Your task to perform on an android device: change keyboard looks Image 0: 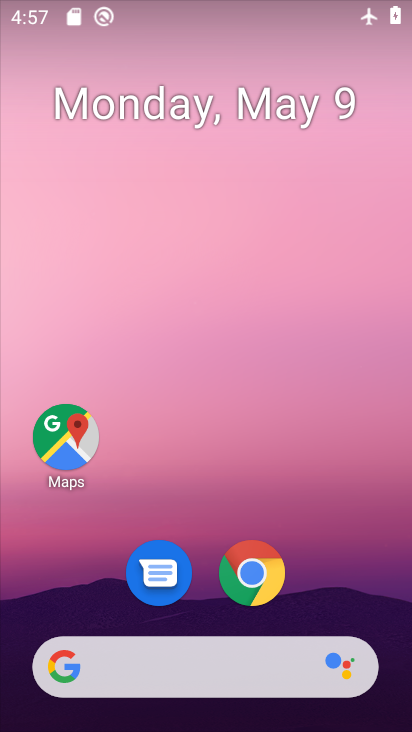
Step 0: drag from (377, 616) to (264, 143)
Your task to perform on an android device: change keyboard looks Image 1: 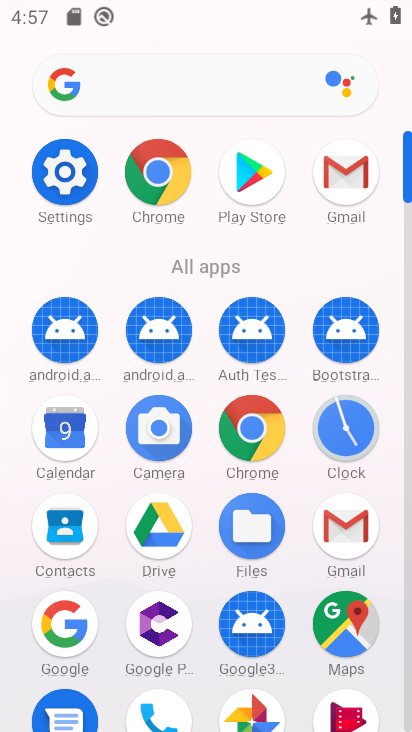
Step 1: click (408, 698)
Your task to perform on an android device: change keyboard looks Image 2: 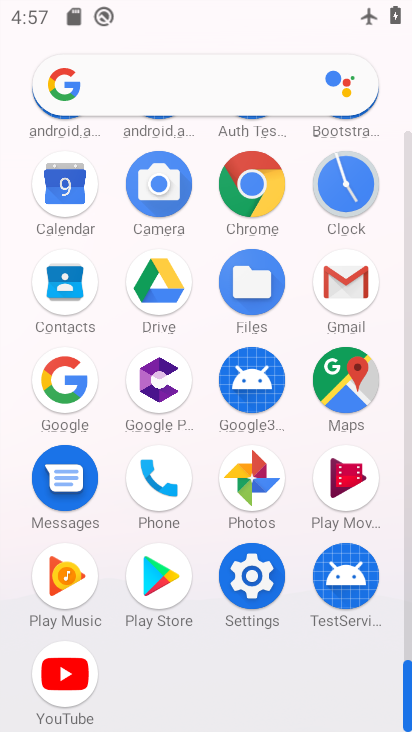
Step 2: click (251, 578)
Your task to perform on an android device: change keyboard looks Image 3: 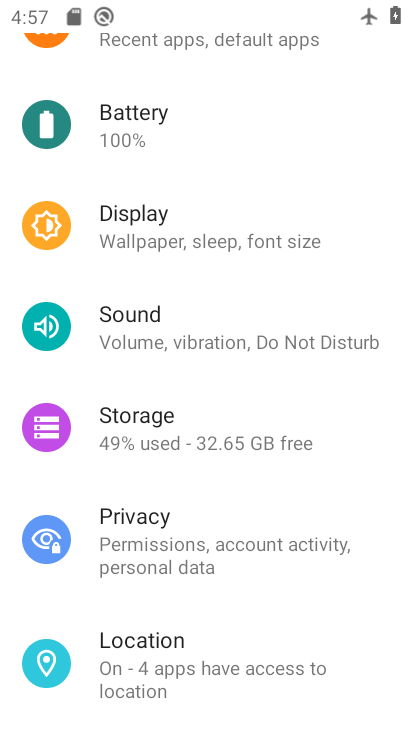
Step 3: drag from (356, 666) to (325, 110)
Your task to perform on an android device: change keyboard looks Image 4: 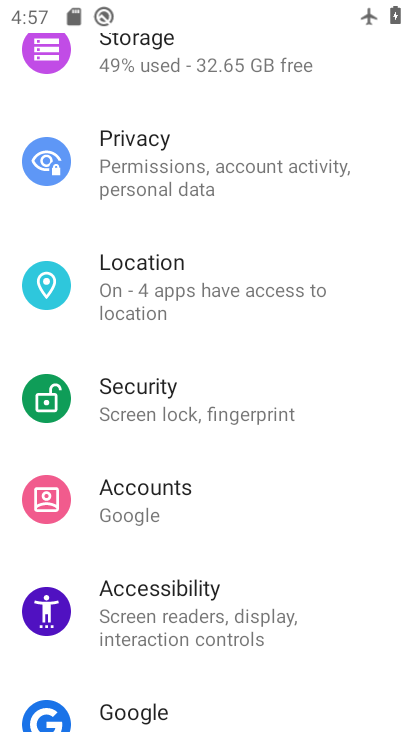
Step 4: drag from (325, 651) to (339, 192)
Your task to perform on an android device: change keyboard looks Image 5: 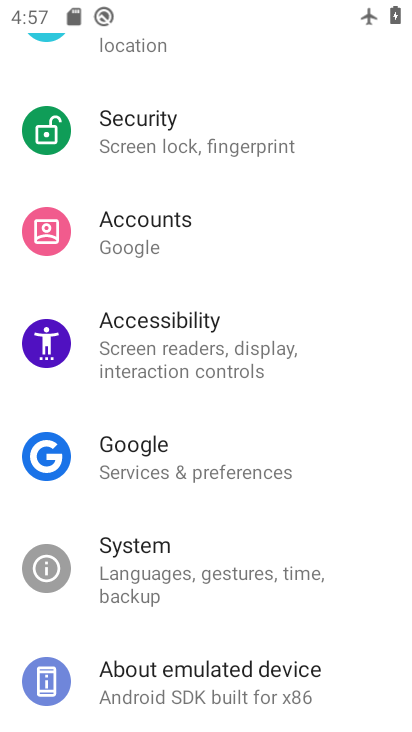
Step 5: click (125, 559)
Your task to perform on an android device: change keyboard looks Image 6: 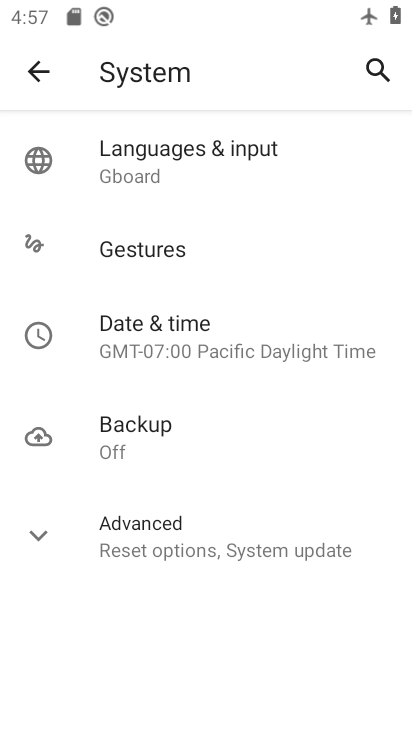
Step 6: click (139, 145)
Your task to perform on an android device: change keyboard looks Image 7: 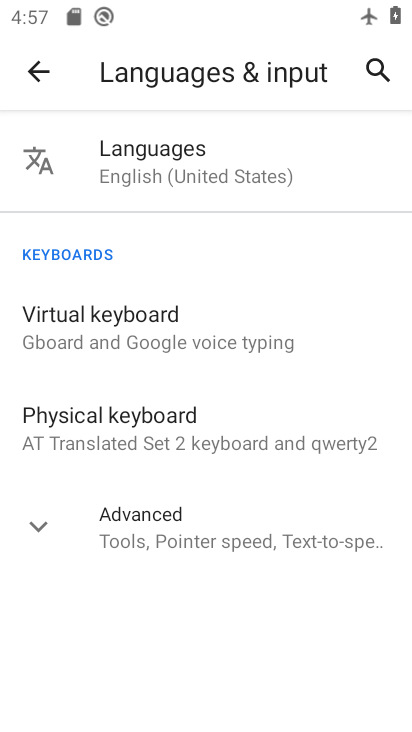
Step 7: click (95, 431)
Your task to perform on an android device: change keyboard looks Image 8: 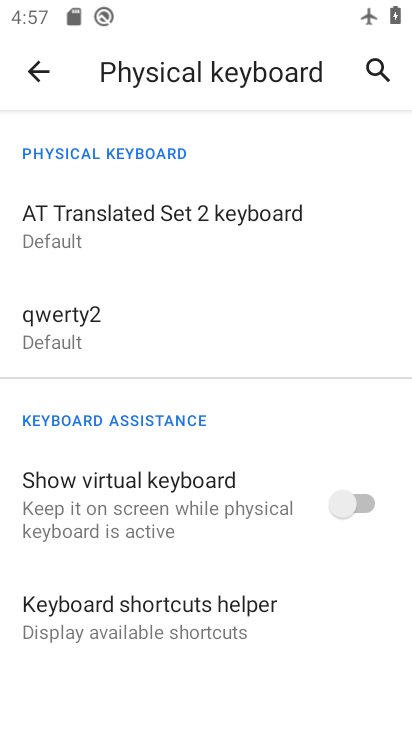
Step 8: click (48, 329)
Your task to perform on an android device: change keyboard looks Image 9: 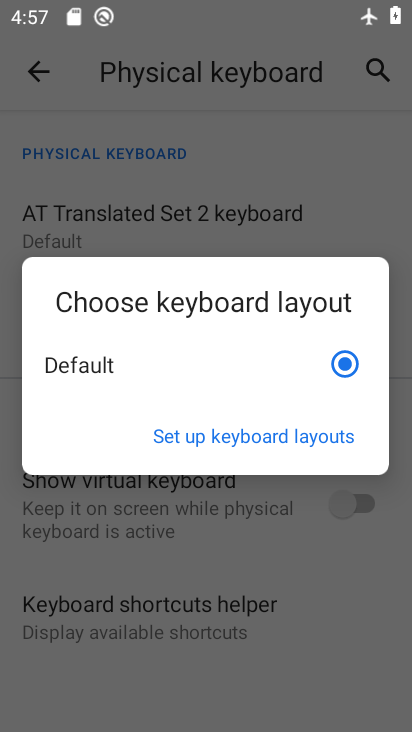
Step 9: click (260, 437)
Your task to perform on an android device: change keyboard looks Image 10: 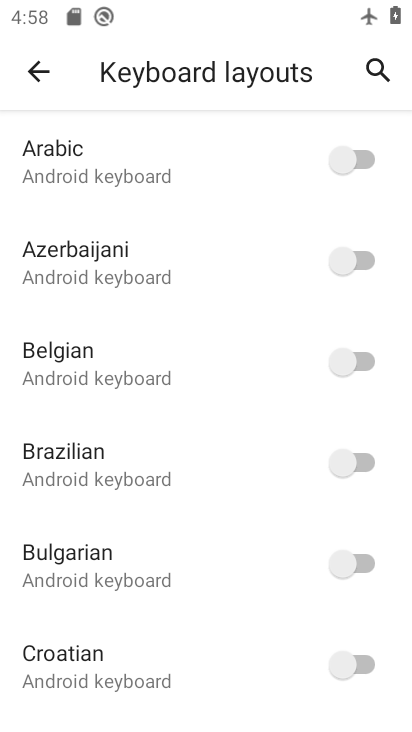
Step 10: drag from (320, 633) to (254, 189)
Your task to perform on an android device: change keyboard looks Image 11: 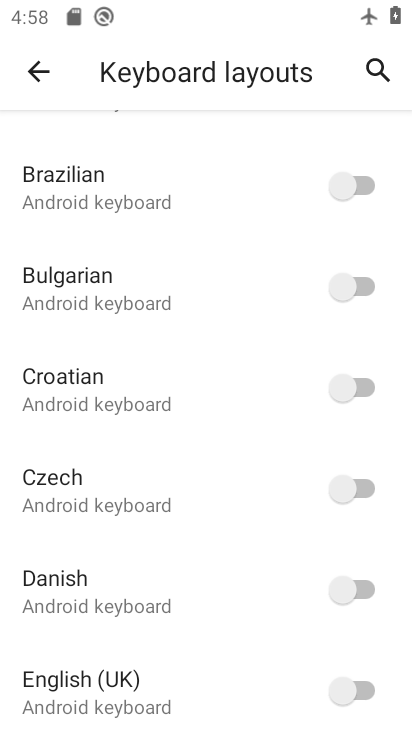
Step 11: click (360, 585)
Your task to perform on an android device: change keyboard looks Image 12: 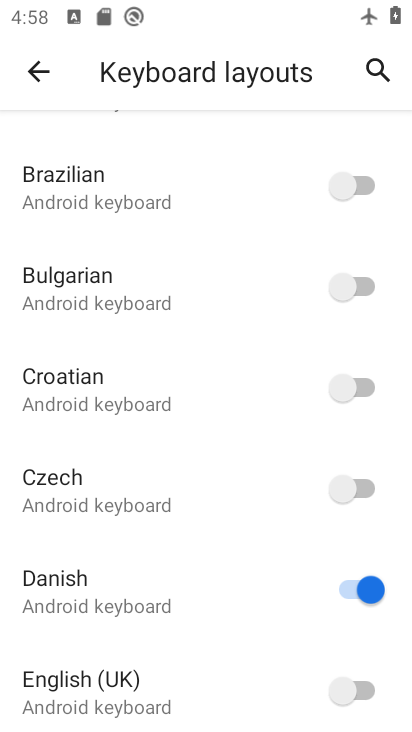
Step 12: task complete